Your task to perform on an android device: turn on improve location accuracy Image 0: 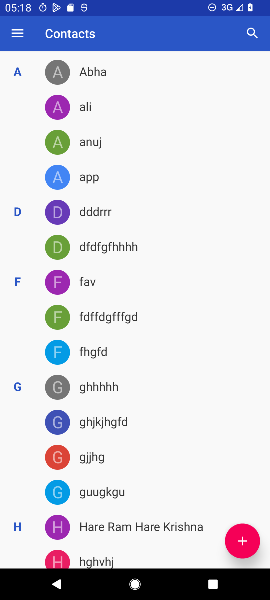
Step 0: press home button
Your task to perform on an android device: turn on improve location accuracy Image 1: 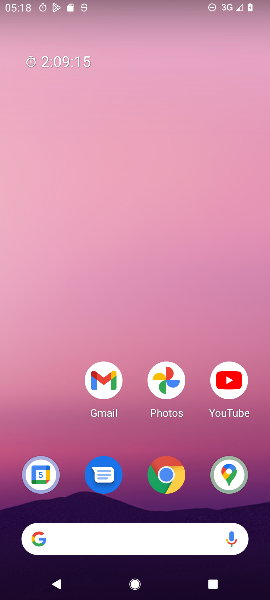
Step 1: drag from (55, 422) to (41, 209)
Your task to perform on an android device: turn on improve location accuracy Image 2: 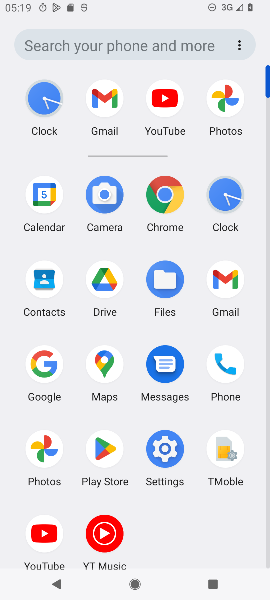
Step 2: click (177, 458)
Your task to perform on an android device: turn on improve location accuracy Image 3: 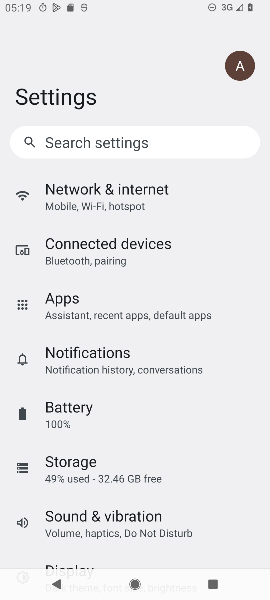
Step 3: drag from (223, 477) to (214, 378)
Your task to perform on an android device: turn on improve location accuracy Image 4: 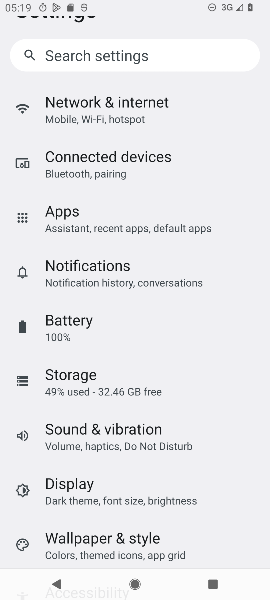
Step 4: drag from (222, 440) to (216, 366)
Your task to perform on an android device: turn on improve location accuracy Image 5: 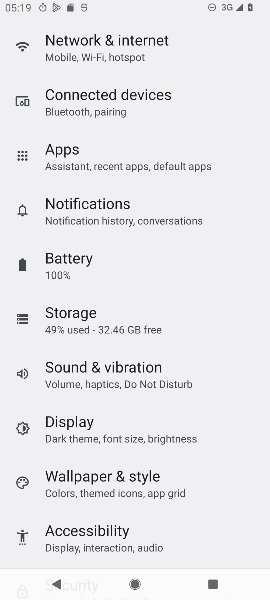
Step 5: drag from (227, 434) to (216, 351)
Your task to perform on an android device: turn on improve location accuracy Image 6: 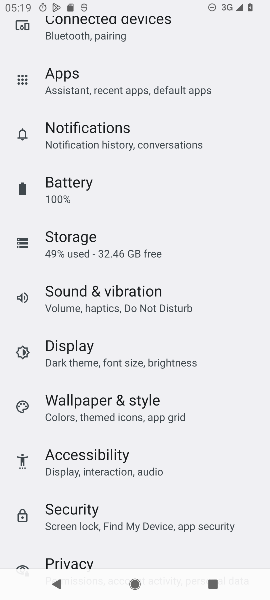
Step 6: drag from (217, 464) to (211, 360)
Your task to perform on an android device: turn on improve location accuracy Image 7: 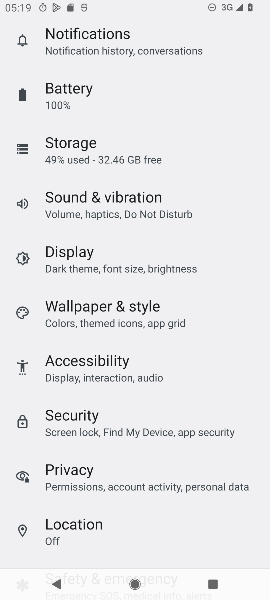
Step 7: drag from (196, 493) to (196, 378)
Your task to perform on an android device: turn on improve location accuracy Image 8: 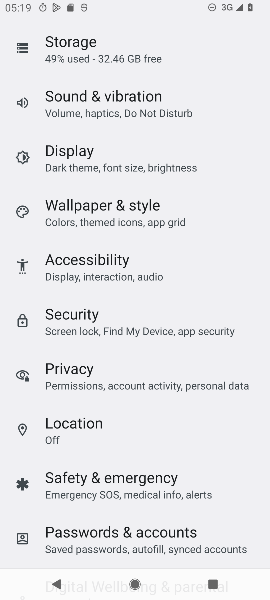
Step 8: drag from (216, 472) to (212, 368)
Your task to perform on an android device: turn on improve location accuracy Image 9: 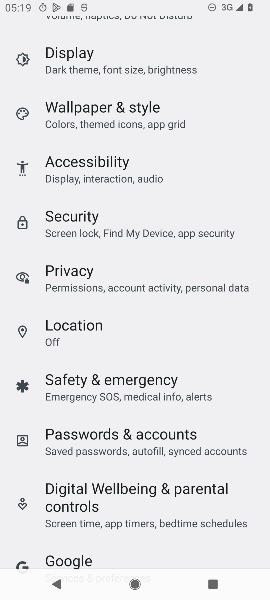
Step 9: click (116, 329)
Your task to perform on an android device: turn on improve location accuracy Image 10: 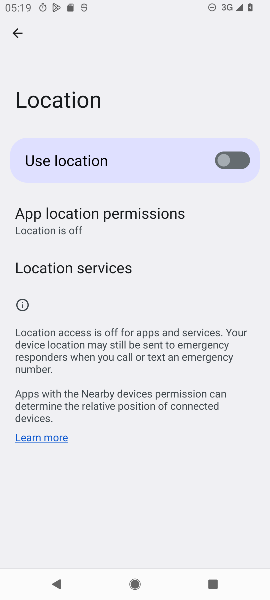
Step 10: click (131, 284)
Your task to perform on an android device: turn on improve location accuracy Image 11: 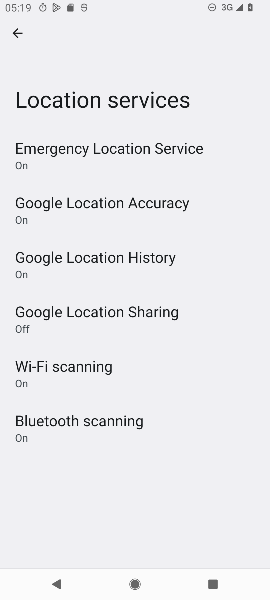
Step 11: click (146, 203)
Your task to perform on an android device: turn on improve location accuracy Image 12: 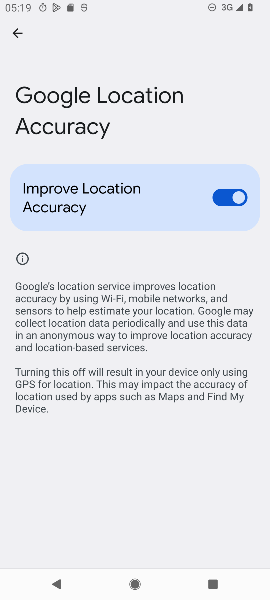
Step 12: task complete